Your task to perform on an android device: When is my next appointment? Image 0: 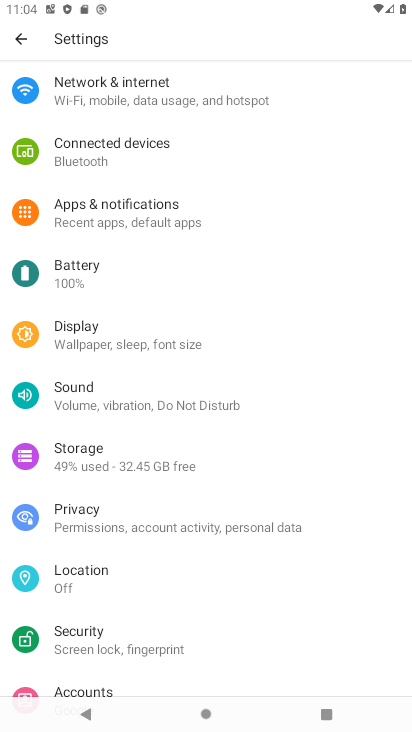
Step 0: press home button
Your task to perform on an android device: When is my next appointment? Image 1: 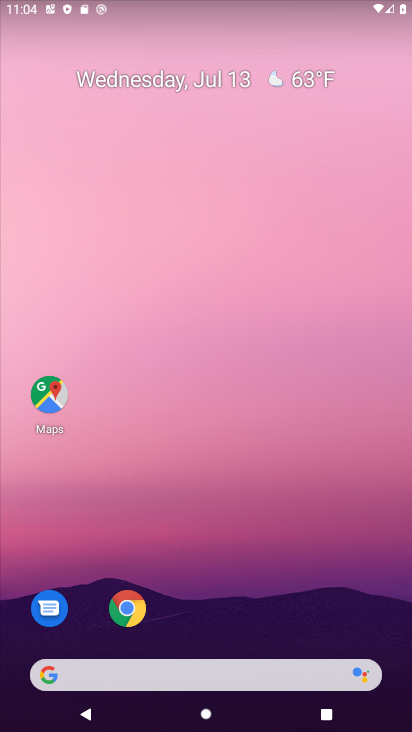
Step 1: drag from (246, 417) to (251, 27)
Your task to perform on an android device: When is my next appointment? Image 2: 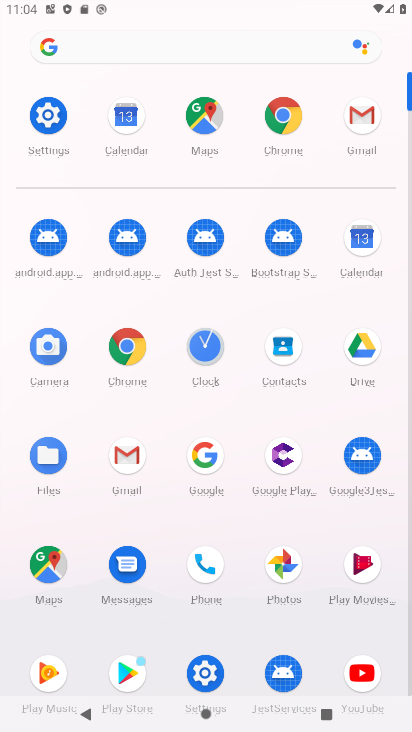
Step 2: click (365, 237)
Your task to perform on an android device: When is my next appointment? Image 3: 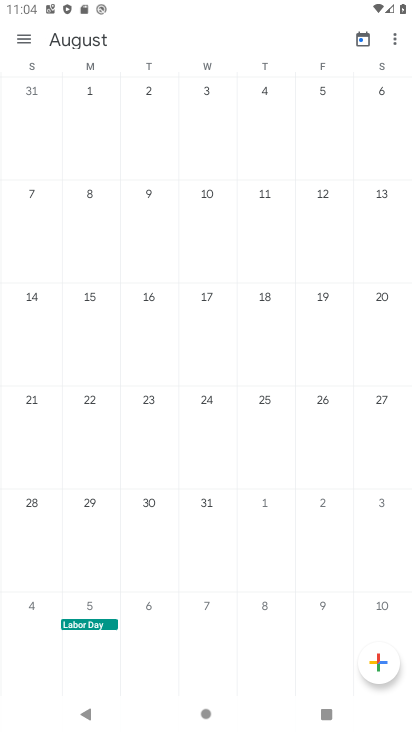
Step 3: click (27, 42)
Your task to perform on an android device: When is my next appointment? Image 4: 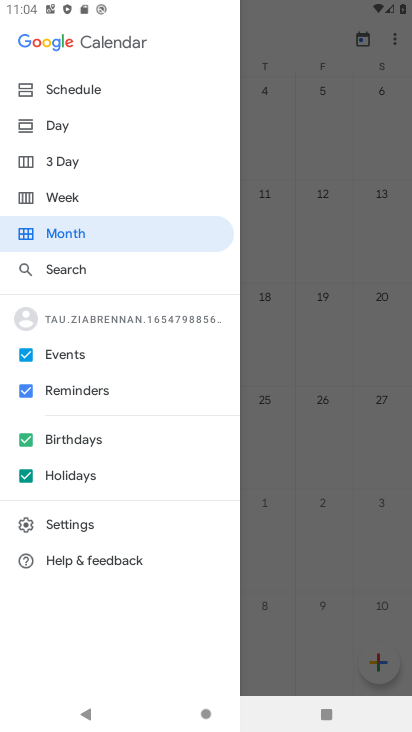
Step 4: click (75, 85)
Your task to perform on an android device: When is my next appointment? Image 5: 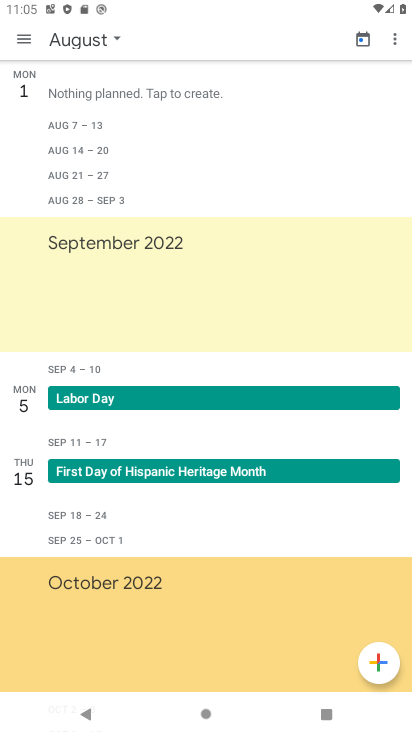
Step 5: task complete